Your task to perform on an android device: find snoozed emails in the gmail app Image 0: 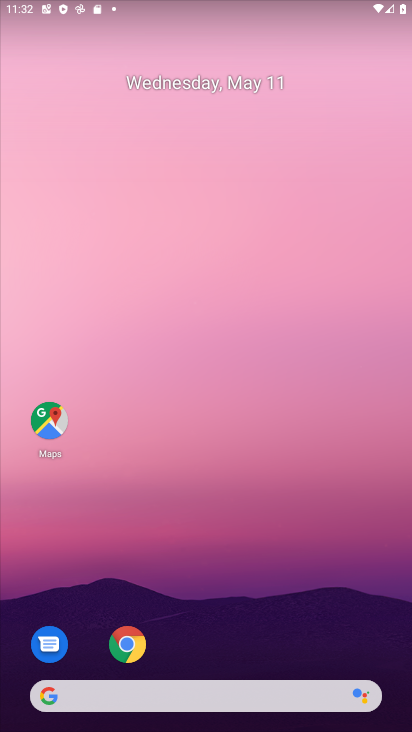
Step 0: drag from (261, 624) to (273, 195)
Your task to perform on an android device: find snoozed emails in the gmail app Image 1: 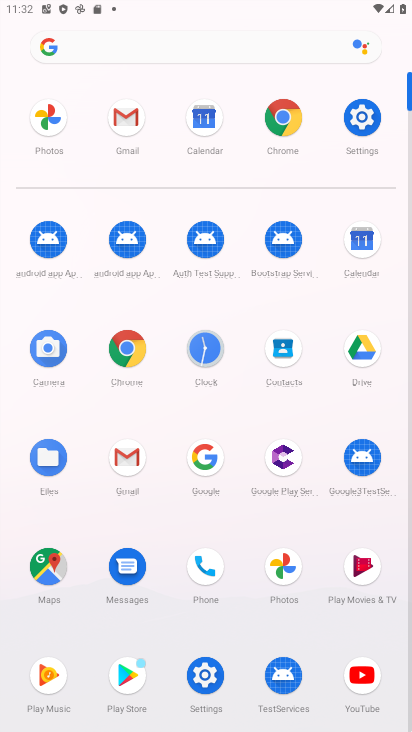
Step 1: click (125, 127)
Your task to perform on an android device: find snoozed emails in the gmail app Image 2: 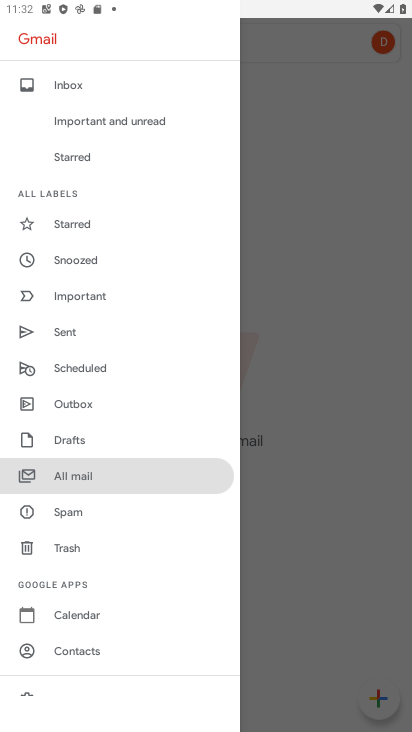
Step 2: click (93, 251)
Your task to perform on an android device: find snoozed emails in the gmail app Image 3: 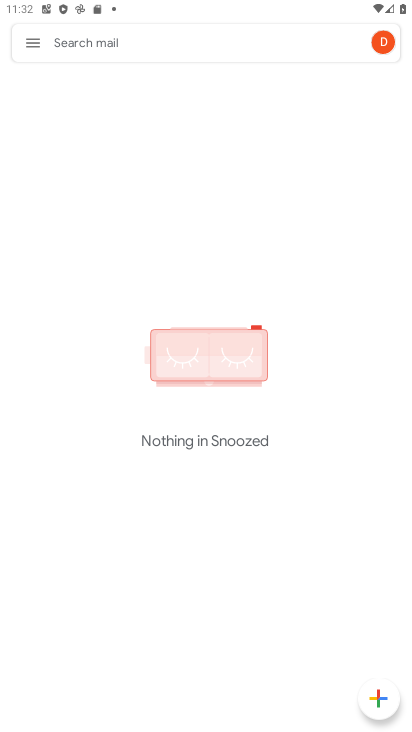
Step 3: task complete